Your task to perform on an android device: Search for vegetarian restaurants on Maps Image 0: 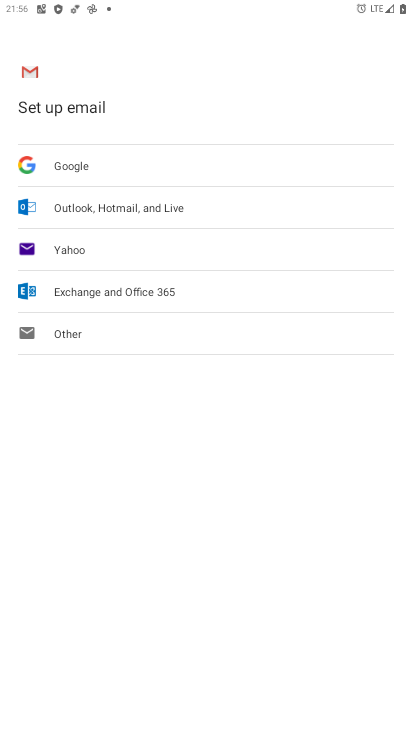
Step 0: press home button
Your task to perform on an android device: Search for vegetarian restaurants on Maps Image 1: 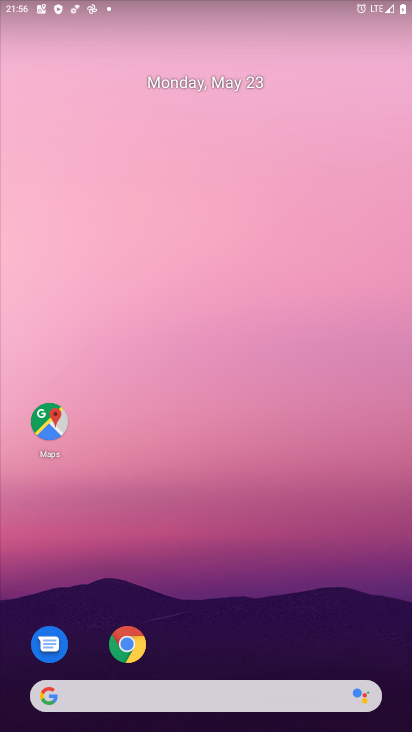
Step 1: click (127, 640)
Your task to perform on an android device: Search for vegetarian restaurants on Maps Image 2: 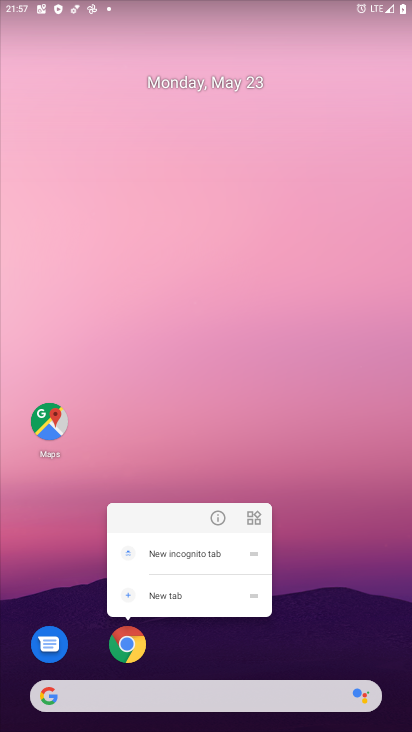
Step 2: click (35, 417)
Your task to perform on an android device: Search for vegetarian restaurants on Maps Image 3: 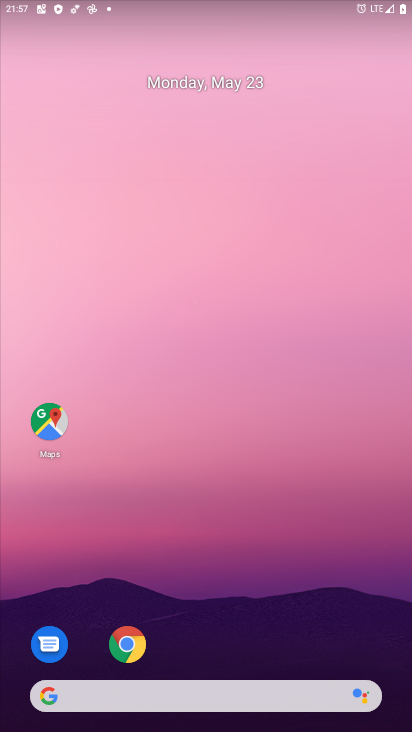
Step 3: click (50, 425)
Your task to perform on an android device: Search for vegetarian restaurants on Maps Image 4: 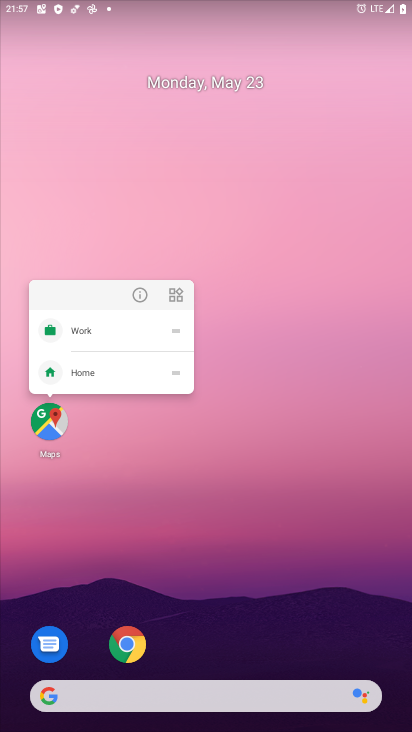
Step 4: click (51, 425)
Your task to perform on an android device: Search for vegetarian restaurants on Maps Image 5: 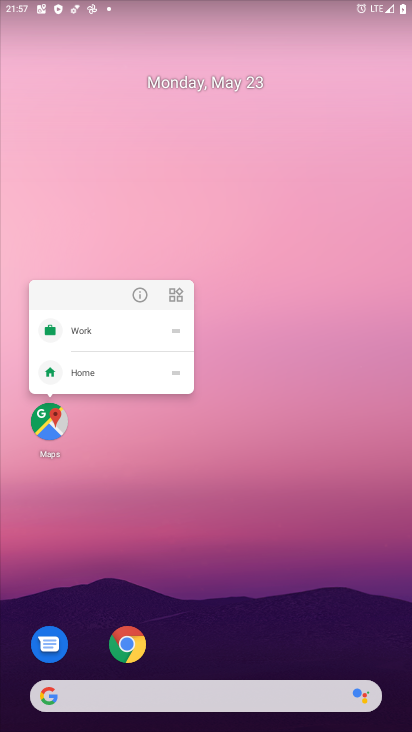
Step 5: click (51, 425)
Your task to perform on an android device: Search for vegetarian restaurants on Maps Image 6: 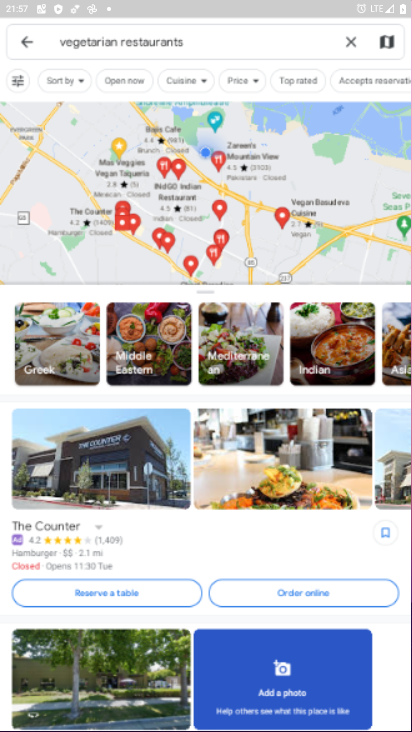
Step 6: click (51, 425)
Your task to perform on an android device: Search for vegetarian restaurants on Maps Image 7: 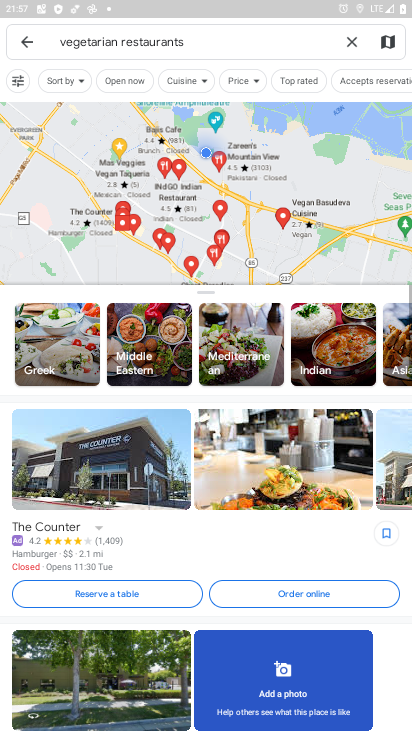
Step 7: task complete